Your task to perform on an android device: see creations saved in the google photos Image 0: 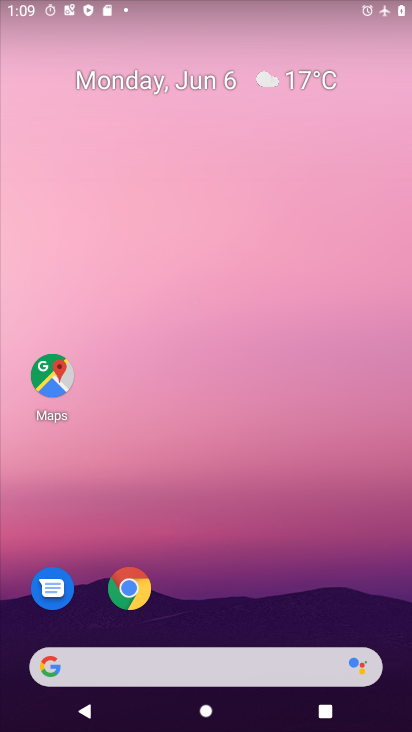
Step 0: drag from (318, 610) to (229, 85)
Your task to perform on an android device: see creations saved in the google photos Image 1: 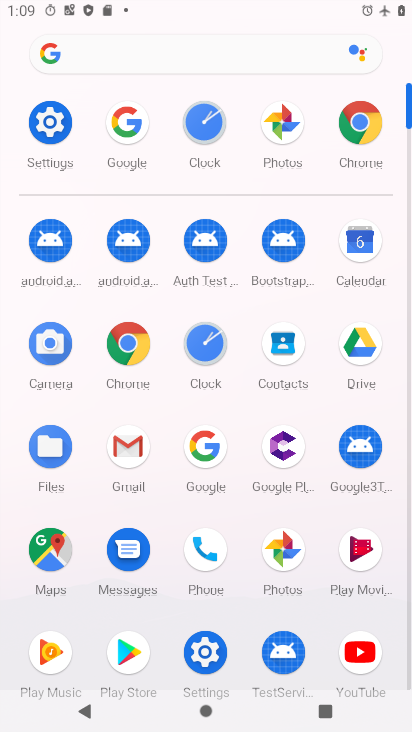
Step 1: click (289, 540)
Your task to perform on an android device: see creations saved in the google photos Image 2: 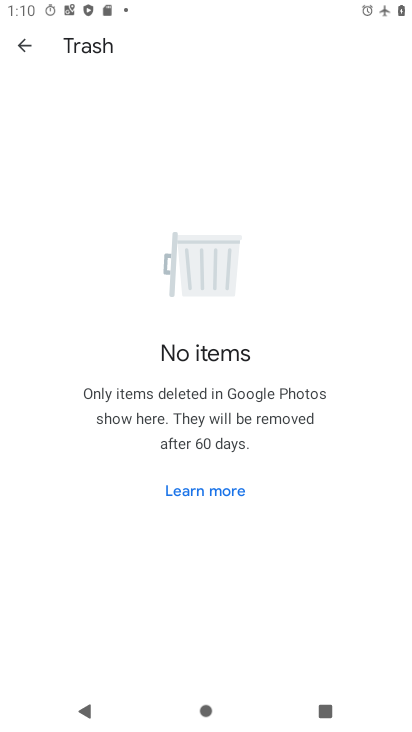
Step 2: click (20, 46)
Your task to perform on an android device: see creations saved in the google photos Image 3: 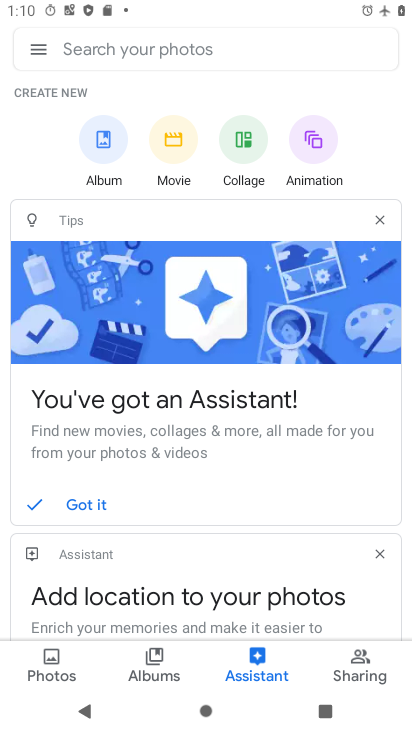
Step 3: task complete